Your task to perform on an android device: Open calendar and show me the third week of next month Image 0: 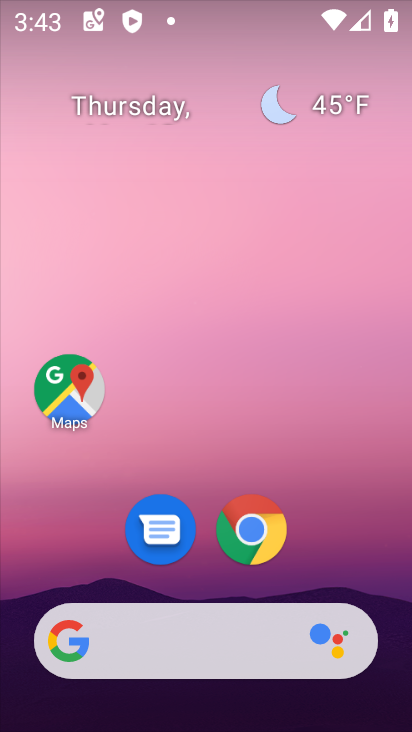
Step 0: drag from (364, 549) to (370, 27)
Your task to perform on an android device: Open calendar and show me the third week of next month Image 1: 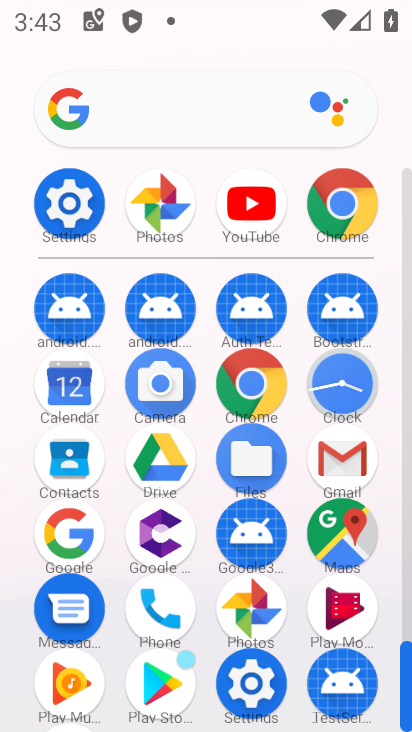
Step 1: click (63, 383)
Your task to perform on an android device: Open calendar and show me the third week of next month Image 2: 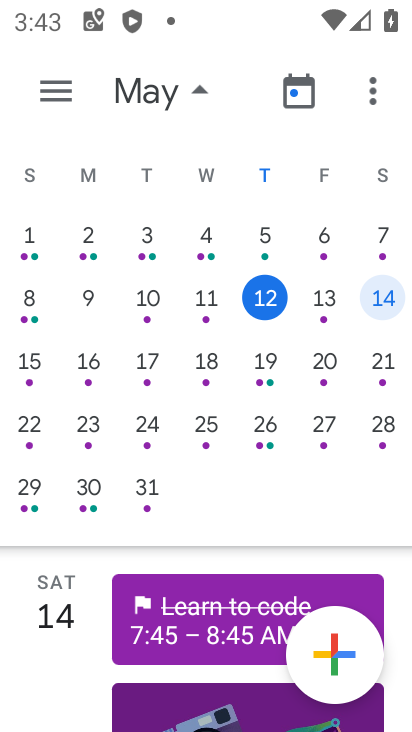
Step 2: drag from (370, 461) to (28, 458)
Your task to perform on an android device: Open calendar and show me the third week of next month Image 3: 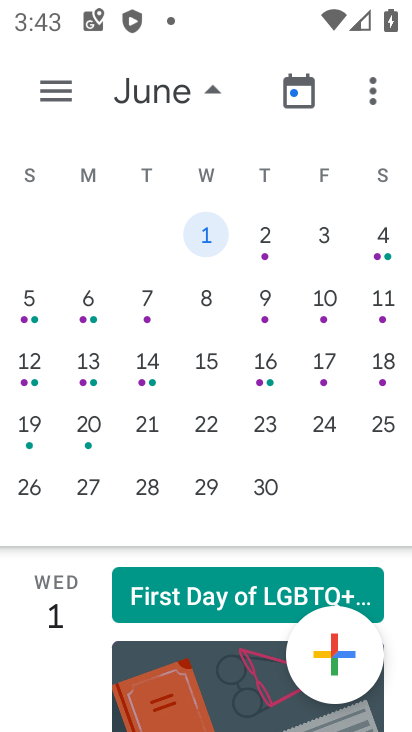
Step 3: click (145, 431)
Your task to perform on an android device: Open calendar and show me the third week of next month Image 4: 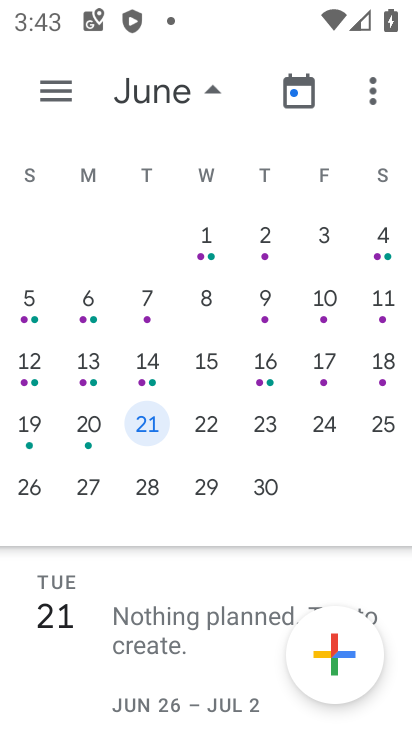
Step 4: task complete